Your task to perform on an android device: empty trash in google photos Image 0: 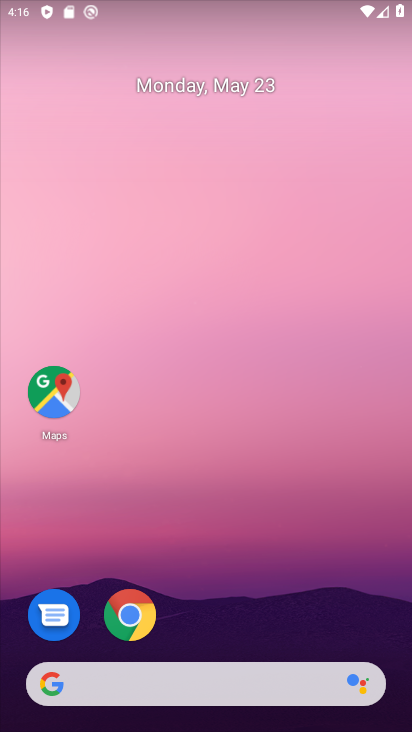
Step 0: drag from (236, 561) to (239, 119)
Your task to perform on an android device: empty trash in google photos Image 1: 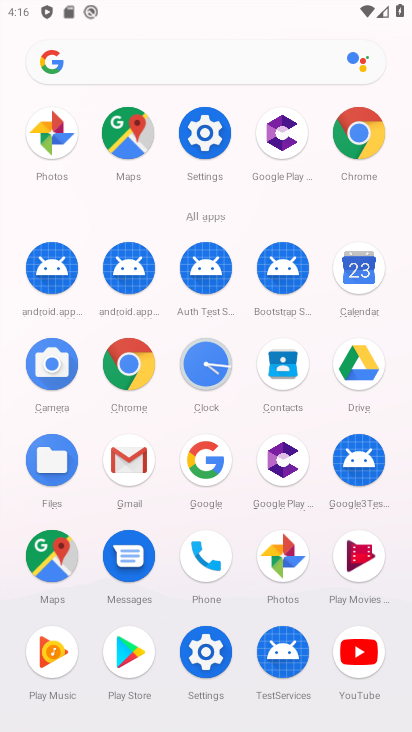
Step 1: click (276, 550)
Your task to perform on an android device: empty trash in google photos Image 2: 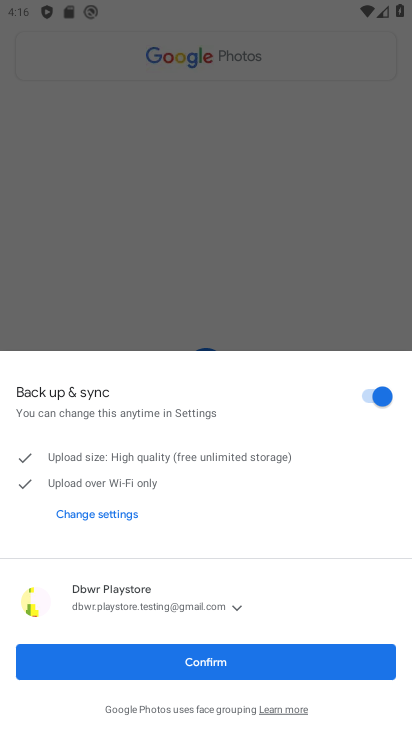
Step 2: click (188, 660)
Your task to perform on an android device: empty trash in google photos Image 3: 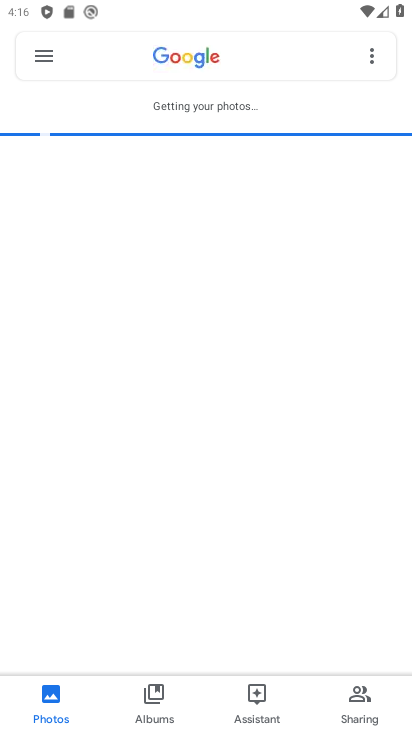
Step 3: click (46, 61)
Your task to perform on an android device: empty trash in google photos Image 4: 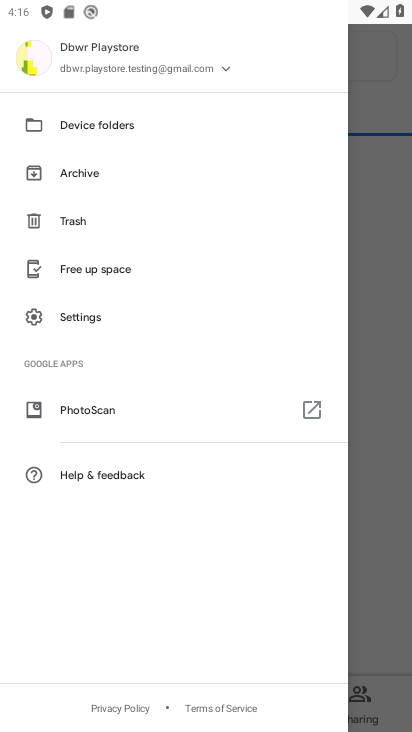
Step 4: click (79, 213)
Your task to perform on an android device: empty trash in google photos Image 5: 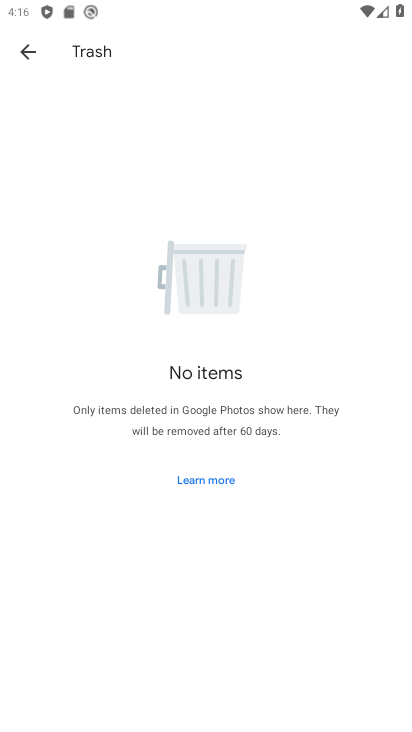
Step 5: task complete